Your task to perform on an android device: When is my next meeting? Image 0: 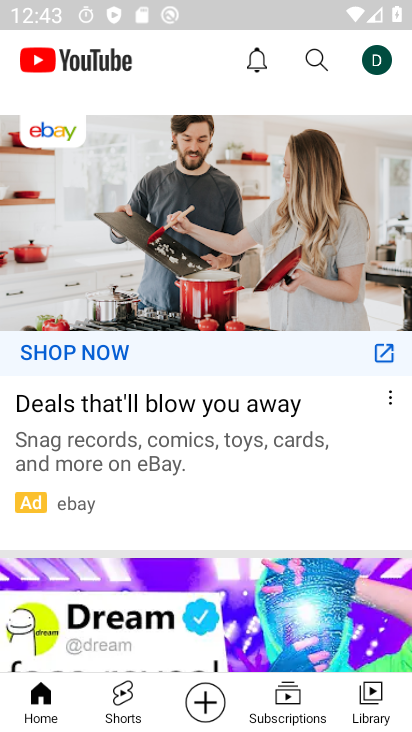
Step 0: press home button
Your task to perform on an android device: When is my next meeting? Image 1: 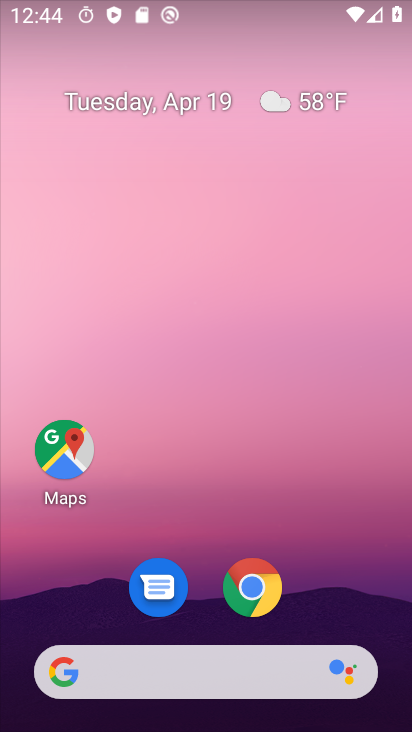
Step 1: drag from (390, 540) to (330, 104)
Your task to perform on an android device: When is my next meeting? Image 2: 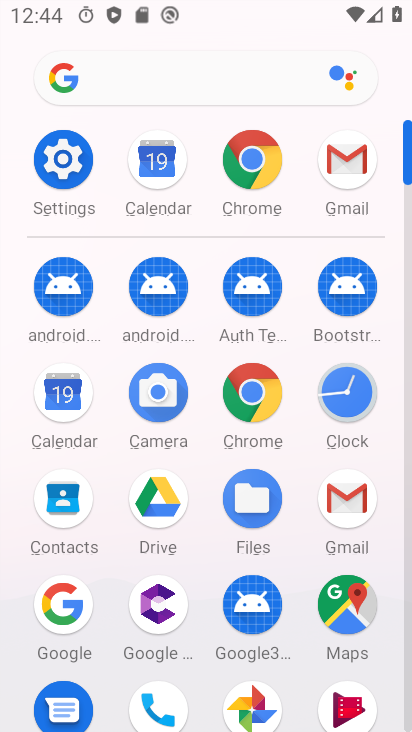
Step 2: click (67, 394)
Your task to perform on an android device: When is my next meeting? Image 3: 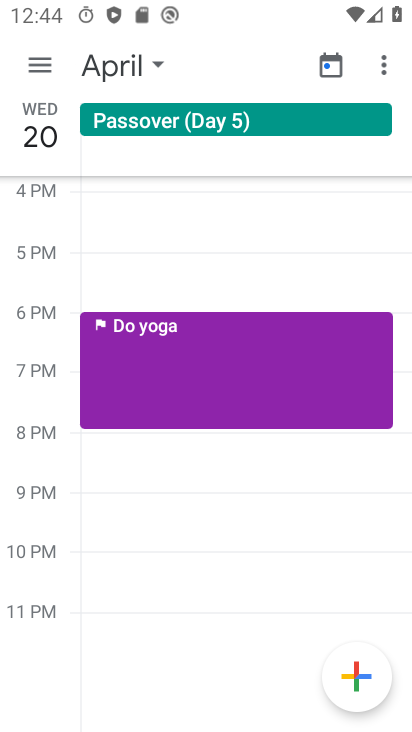
Step 3: click (36, 67)
Your task to perform on an android device: When is my next meeting? Image 4: 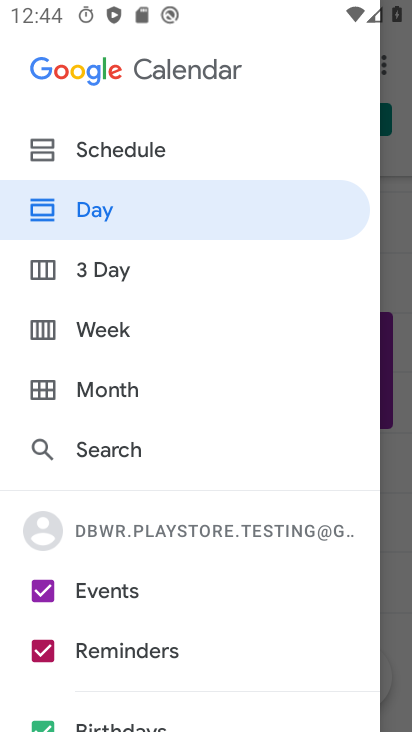
Step 4: drag from (240, 564) to (245, 262)
Your task to perform on an android device: When is my next meeting? Image 5: 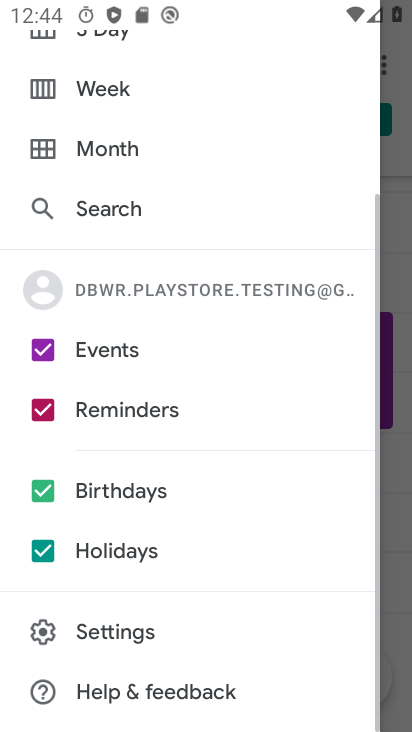
Step 5: click (47, 554)
Your task to perform on an android device: When is my next meeting? Image 6: 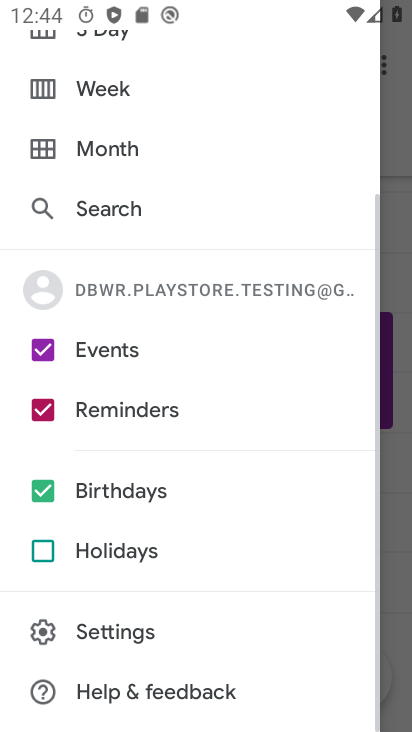
Step 6: click (41, 493)
Your task to perform on an android device: When is my next meeting? Image 7: 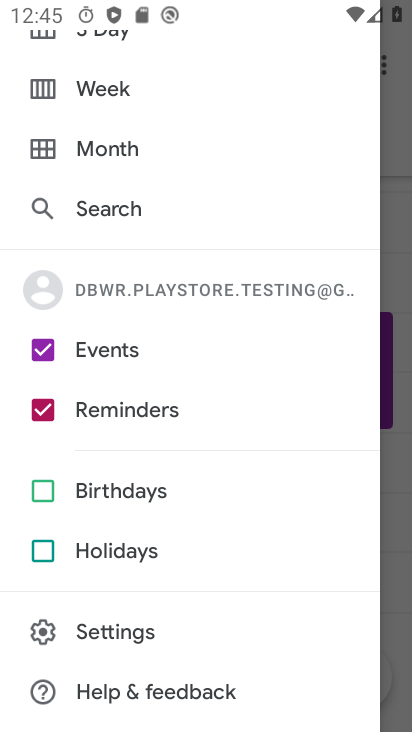
Step 7: click (400, 249)
Your task to perform on an android device: When is my next meeting? Image 8: 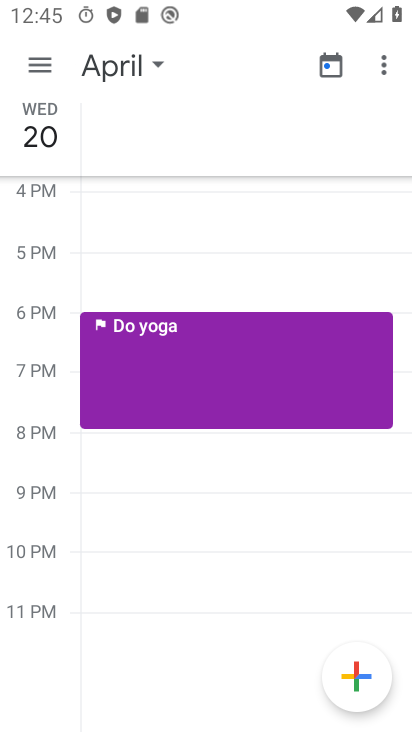
Step 8: task complete